Your task to perform on an android device: Open settings Image 0: 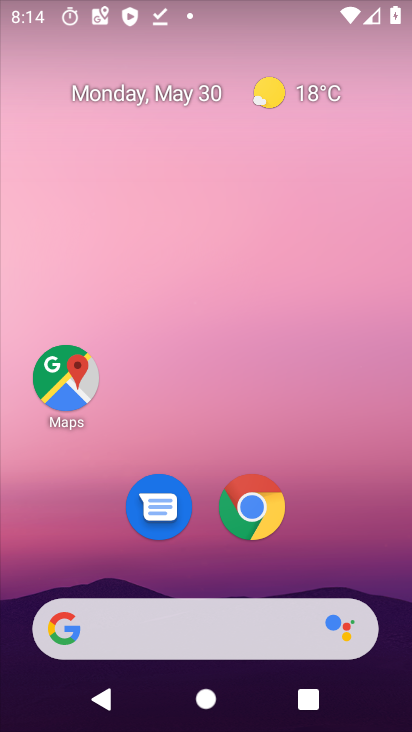
Step 0: drag from (360, 518) to (352, 100)
Your task to perform on an android device: Open settings Image 1: 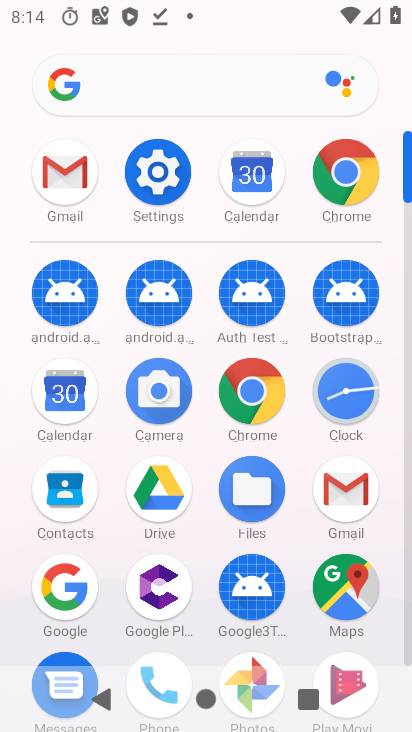
Step 1: click (169, 193)
Your task to perform on an android device: Open settings Image 2: 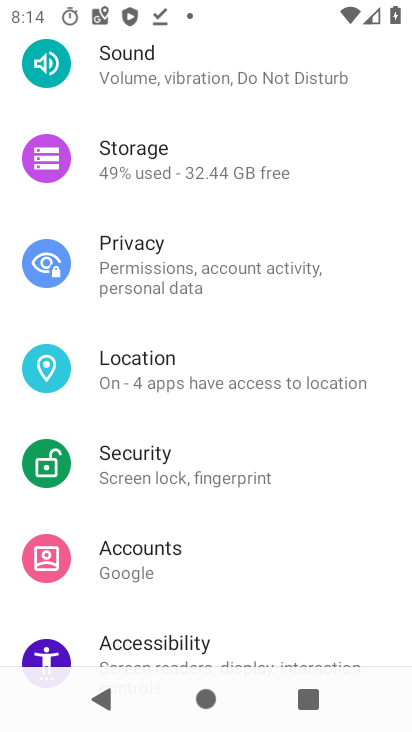
Step 2: task complete